Your task to perform on an android device: turn notification dots on Image 0: 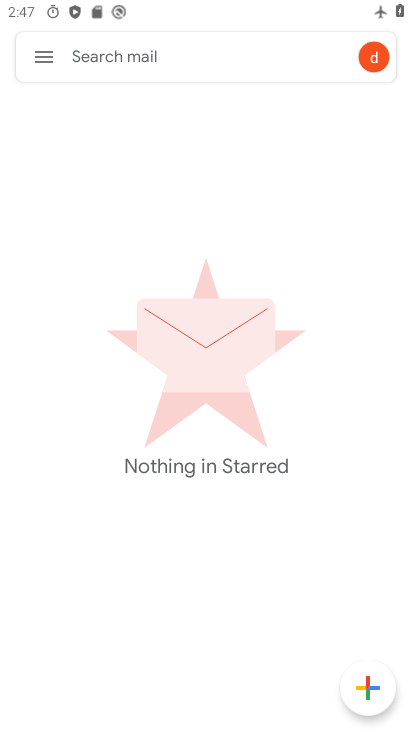
Step 0: press home button
Your task to perform on an android device: turn notification dots on Image 1: 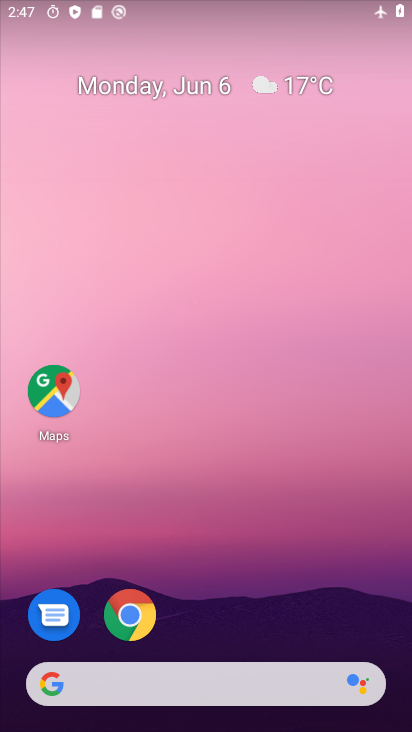
Step 1: drag from (229, 616) to (262, 128)
Your task to perform on an android device: turn notification dots on Image 2: 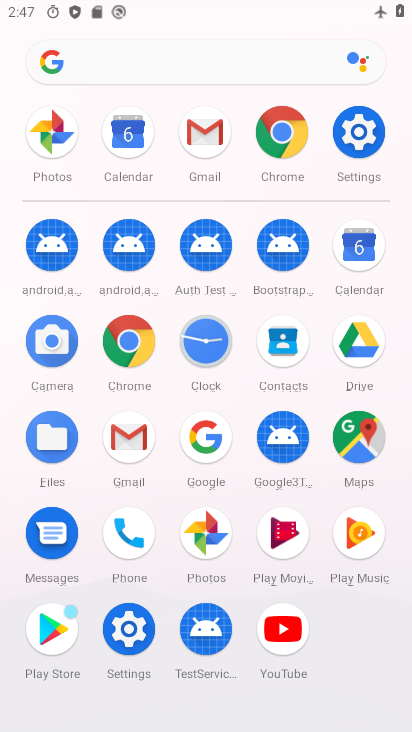
Step 2: click (359, 150)
Your task to perform on an android device: turn notification dots on Image 3: 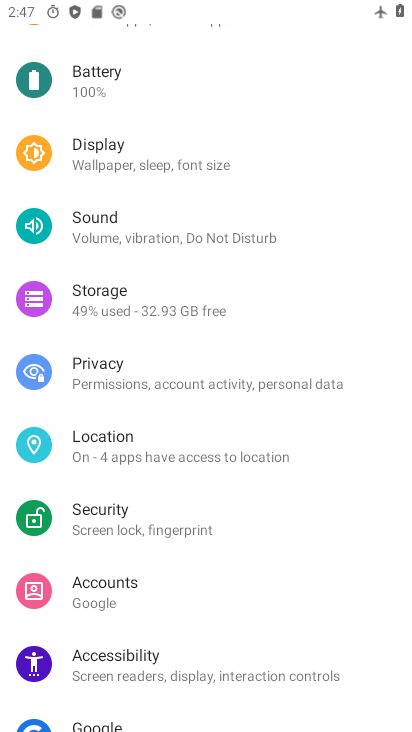
Step 3: drag from (175, 186) to (150, 614)
Your task to perform on an android device: turn notification dots on Image 4: 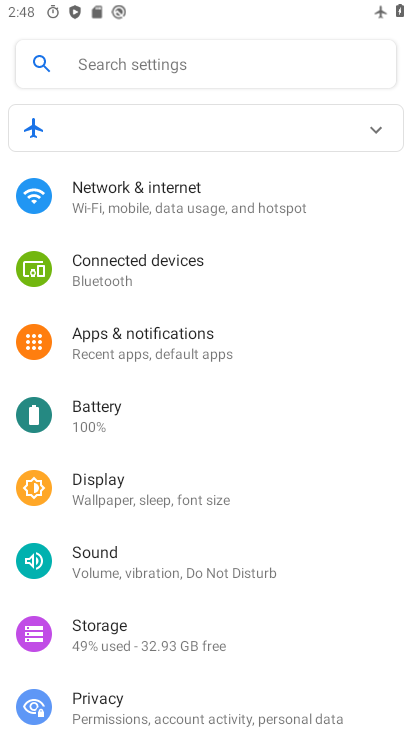
Step 4: click (165, 342)
Your task to perform on an android device: turn notification dots on Image 5: 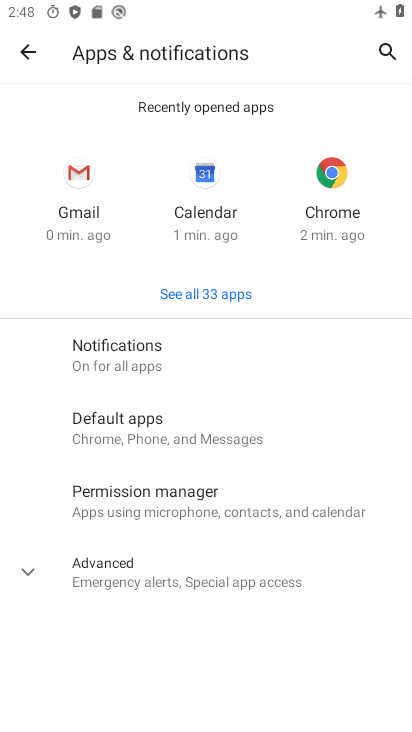
Step 5: click (135, 363)
Your task to perform on an android device: turn notification dots on Image 6: 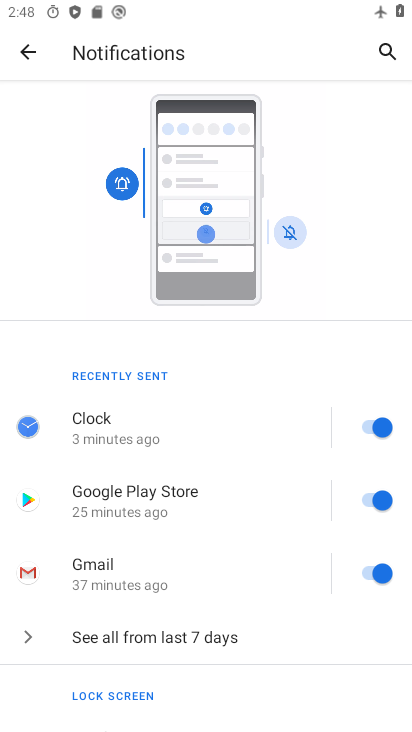
Step 6: task complete